Your task to perform on an android device: find snoozed emails in the gmail app Image 0: 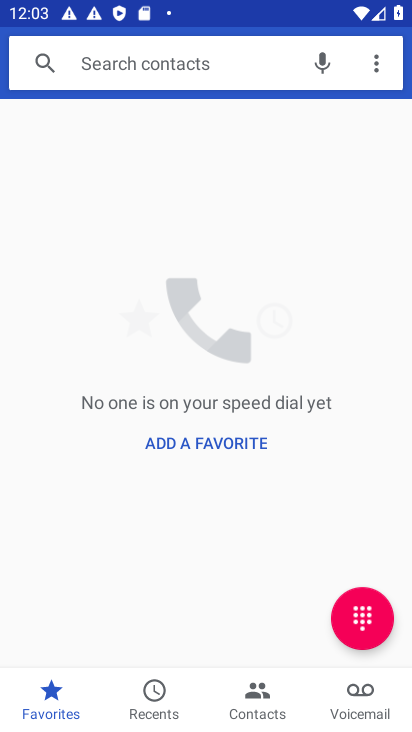
Step 0: press home button
Your task to perform on an android device: find snoozed emails in the gmail app Image 1: 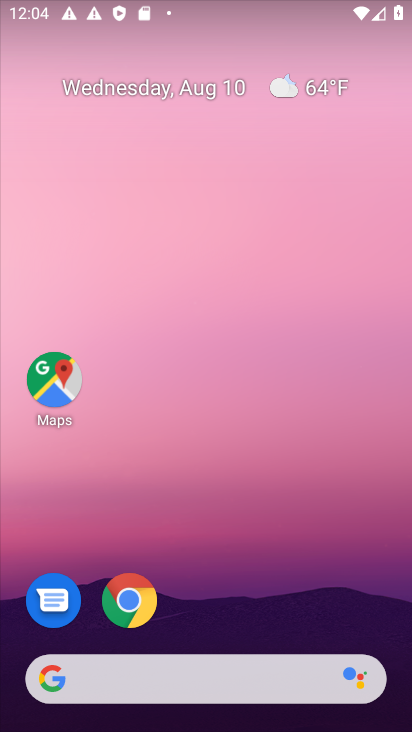
Step 1: task complete